Your task to perform on an android device: change the clock display to digital Image 0: 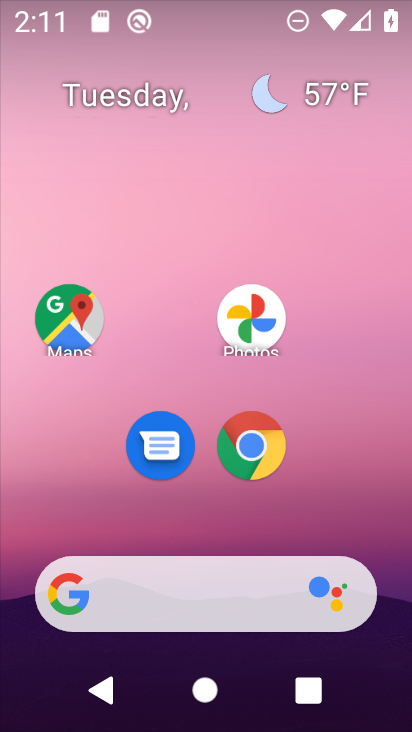
Step 0: drag from (331, 496) to (334, 189)
Your task to perform on an android device: change the clock display to digital Image 1: 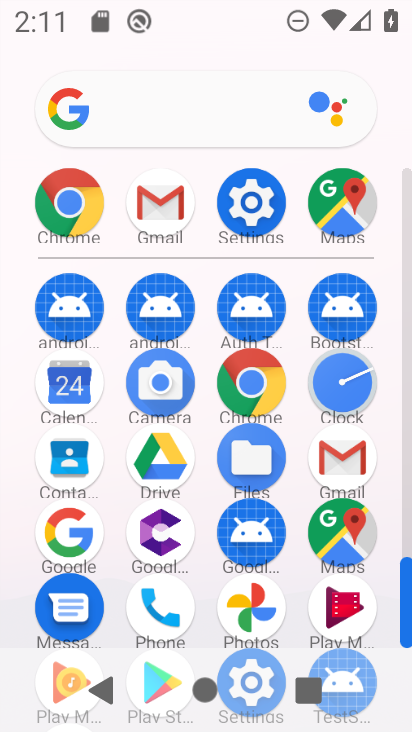
Step 1: click (354, 402)
Your task to perform on an android device: change the clock display to digital Image 2: 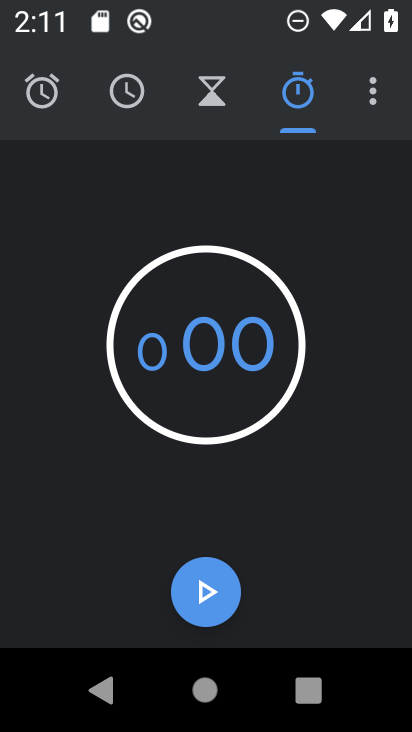
Step 2: click (375, 106)
Your task to perform on an android device: change the clock display to digital Image 3: 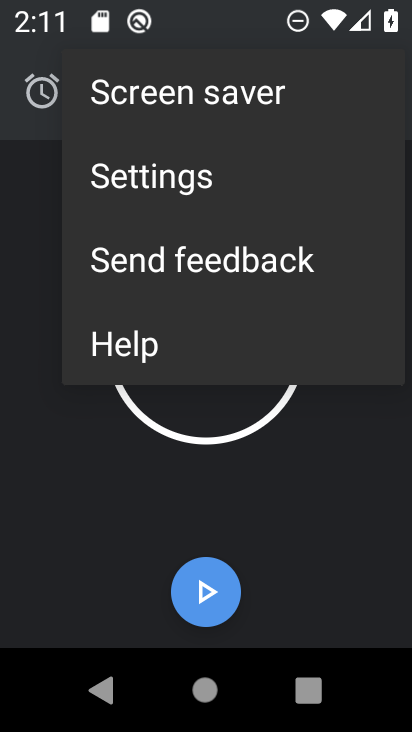
Step 3: click (217, 189)
Your task to perform on an android device: change the clock display to digital Image 4: 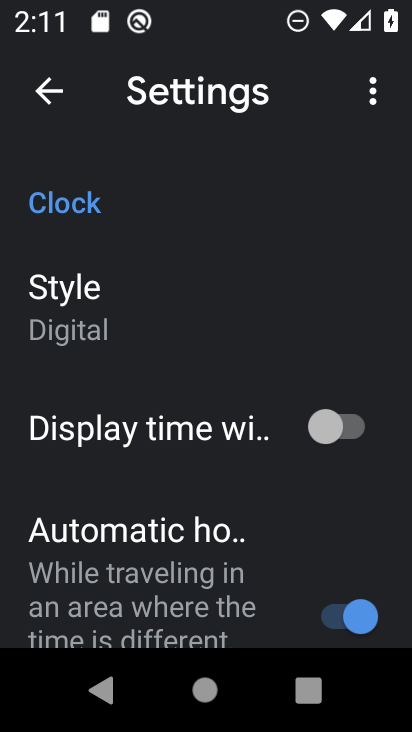
Step 4: task complete